Your task to perform on an android device: Show me the alarms in the clock app Image 0: 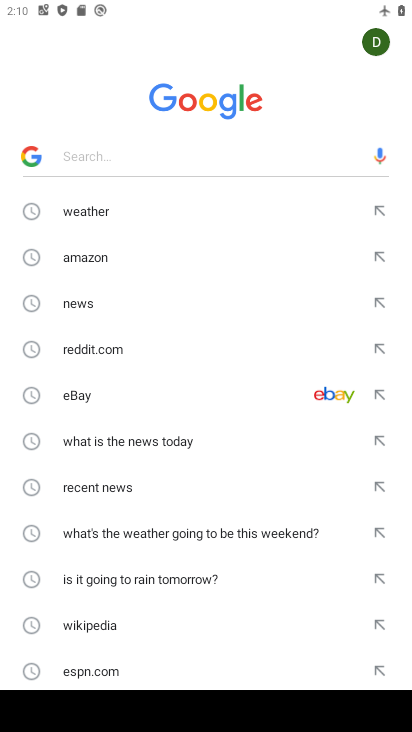
Step 0: press back button
Your task to perform on an android device: Show me the alarms in the clock app Image 1: 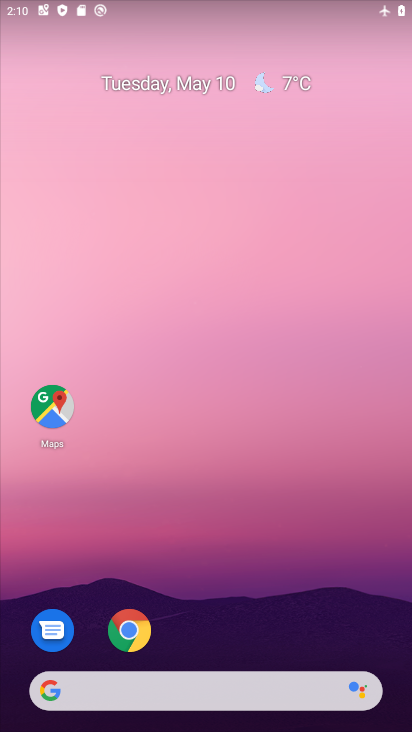
Step 1: drag from (226, 581) to (199, 84)
Your task to perform on an android device: Show me the alarms in the clock app Image 2: 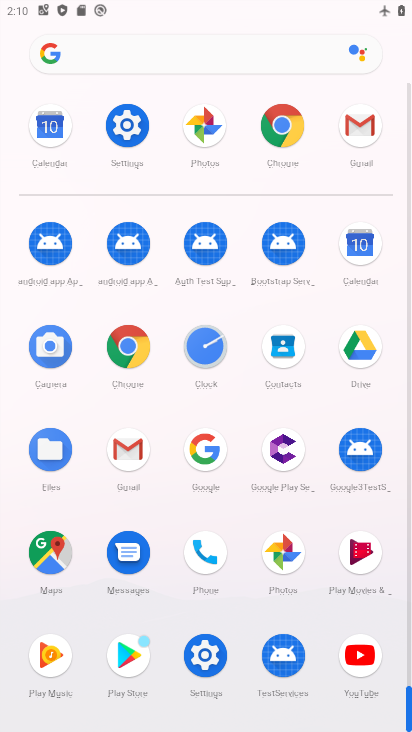
Step 2: drag from (21, 536) to (10, 223)
Your task to perform on an android device: Show me the alarms in the clock app Image 3: 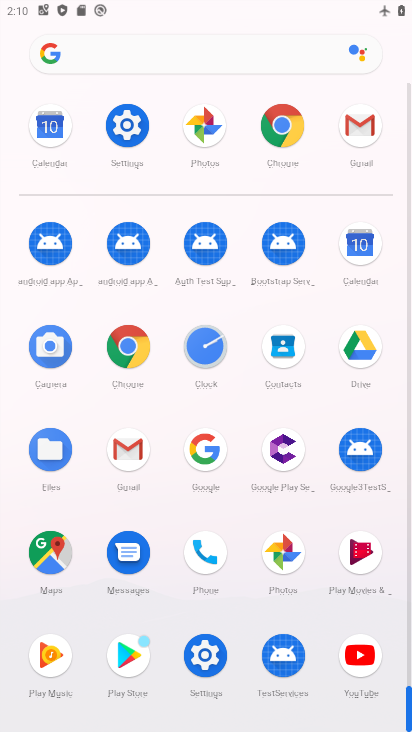
Step 3: click (205, 347)
Your task to perform on an android device: Show me the alarms in the clock app Image 4: 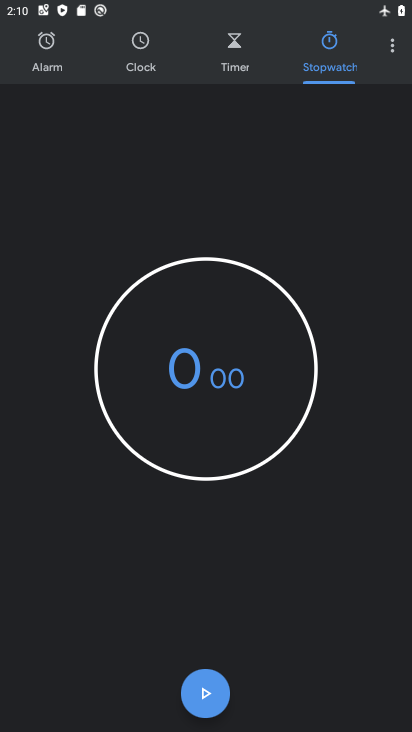
Step 4: click (54, 61)
Your task to perform on an android device: Show me the alarms in the clock app Image 5: 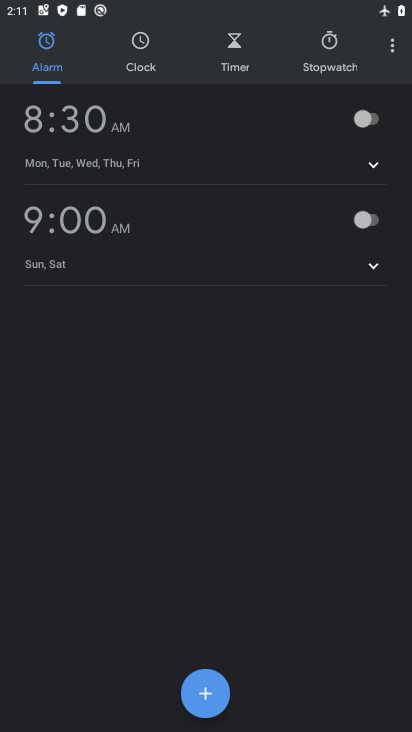
Step 5: task complete